Your task to perform on an android device: Search for vegetarian restaurants on Maps Image 0: 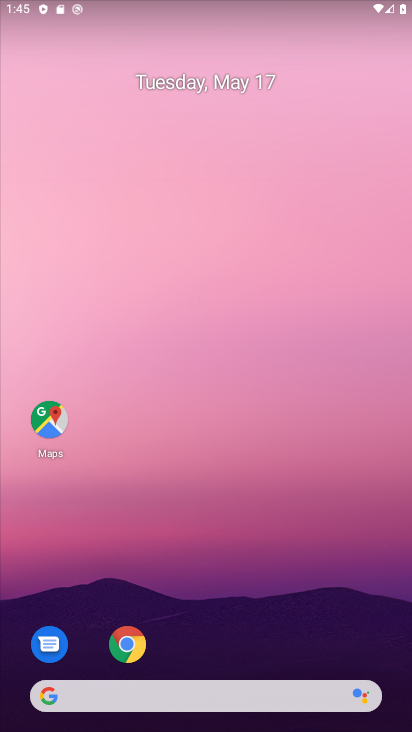
Step 0: click (51, 417)
Your task to perform on an android device: Search for vegetarian restaurants on Maps Image 1: 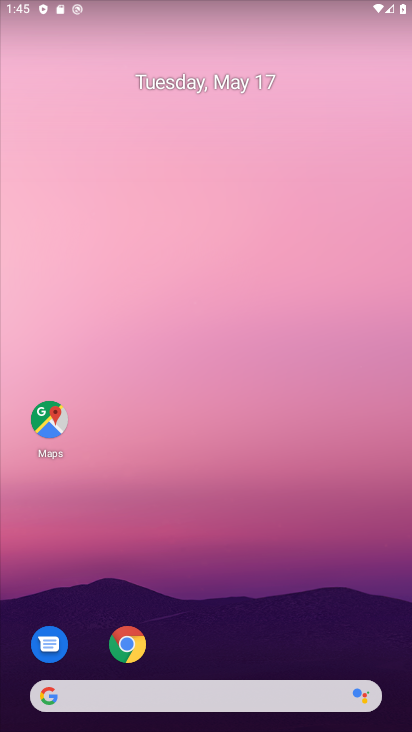
Step 1: click (51, 417)
Your task to perform on an android device: Search for vegetarian restaurants on Maps Image 2: 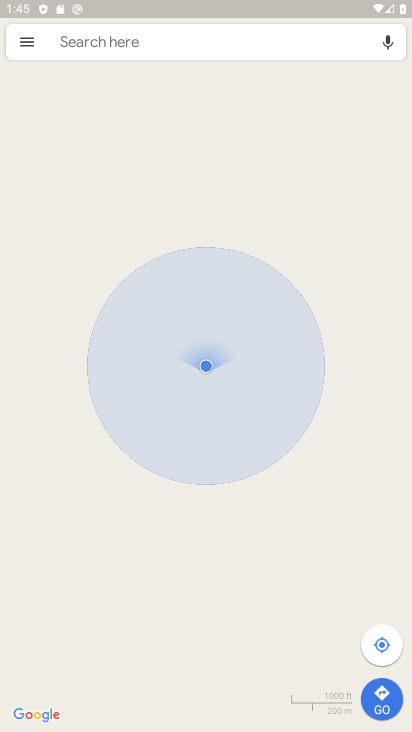
Step 2: click (131, 42)
Your task to perform on an android device: Search for vegetarian restaurants on Maps Image 3: 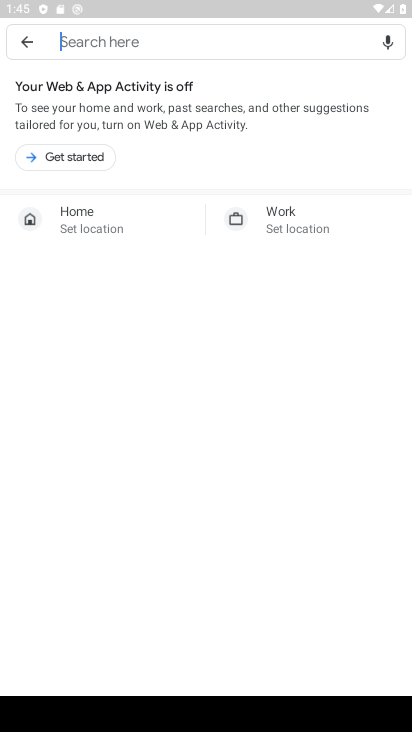
Step 3: click (110, 46)
Your task to perform on an android device: Search for vegetarian restaurants on Maps Image 4: 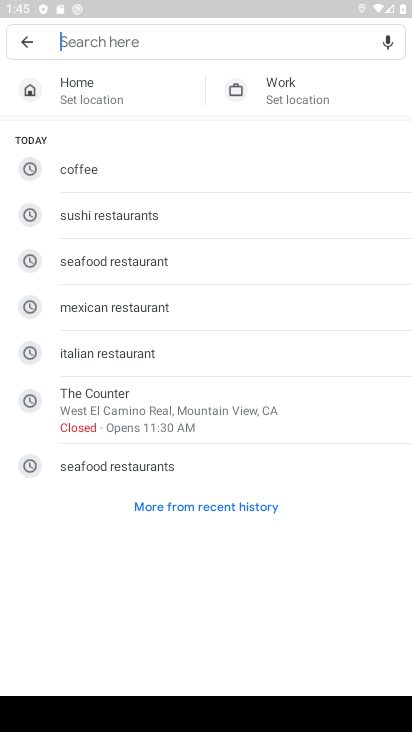
Step 4: type "vegeration reastuarent"
Your task to perform on an android device: Search for vegetarian restaurants on Maps Image 5: 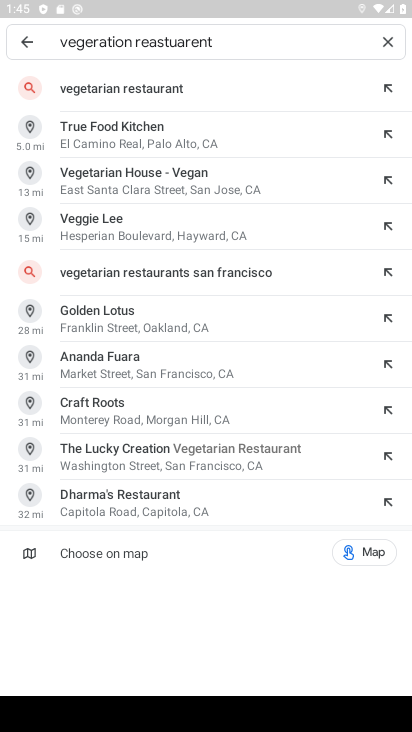
Step 5: click (207, 91)
Your task to perform on an android device: Search for vegetarian restaurants on Maps Image 6: 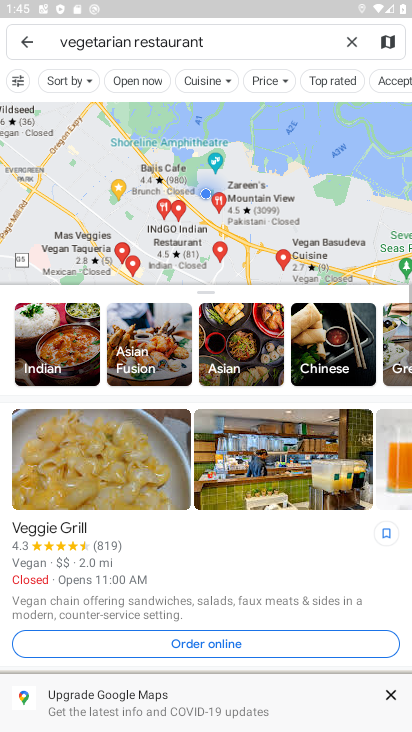
Step 6: task complete